Your task to perform on an android device: delete the emails in spam in the gmail app Image 0: 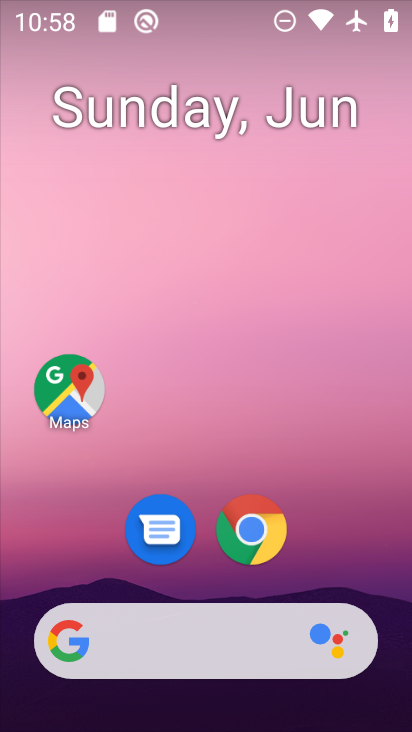
Step 0: drag from (405, 632) to (318, 94)
Your task to perform on an android device: delete the emails in spam in the gmail app Image 1: 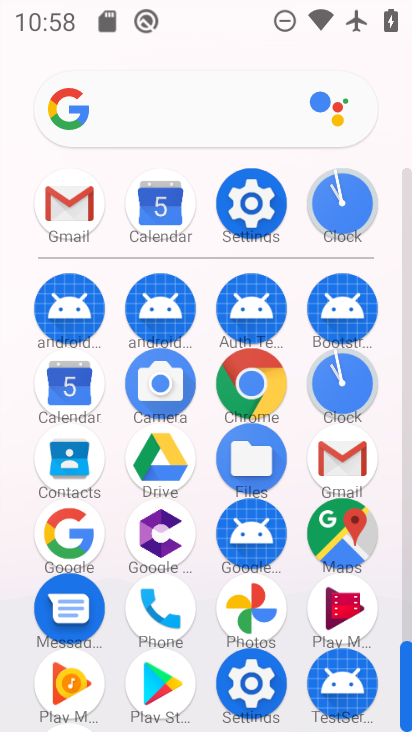
Step 1: click (340, 453)
Your task to perform on an android device: delete the emails in spam in the gmail app Image 2: 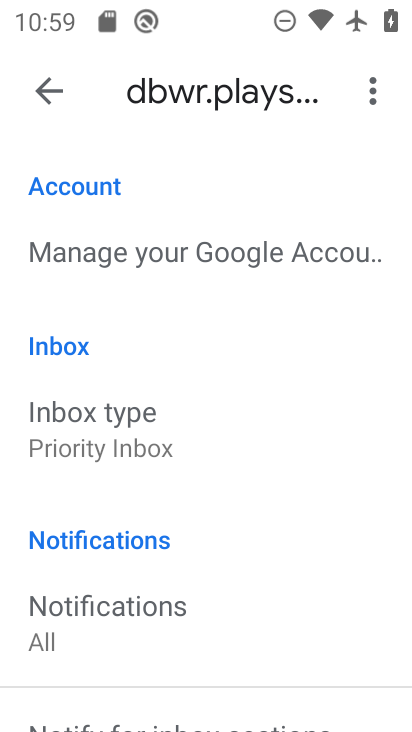
Step 2: press back button
Your task to perform on an android device: delete the emails in spam in the gmail app Image 3: 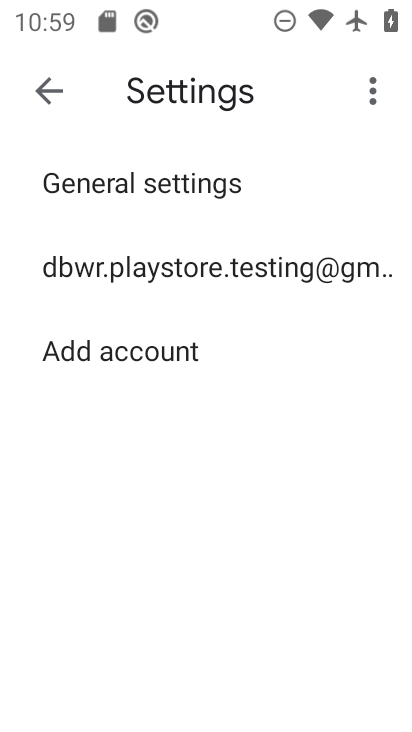
Step 3: press back button
Your task to perform on an android device: delete the emails in spam in the gmail app Image 4: 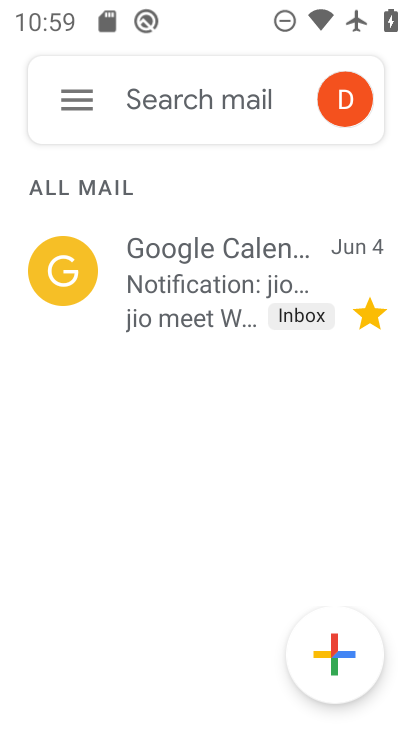
Step 4: click (81, 99)
Your task to perform on an android device: delete the emails in spam in the gmail app Image 5: 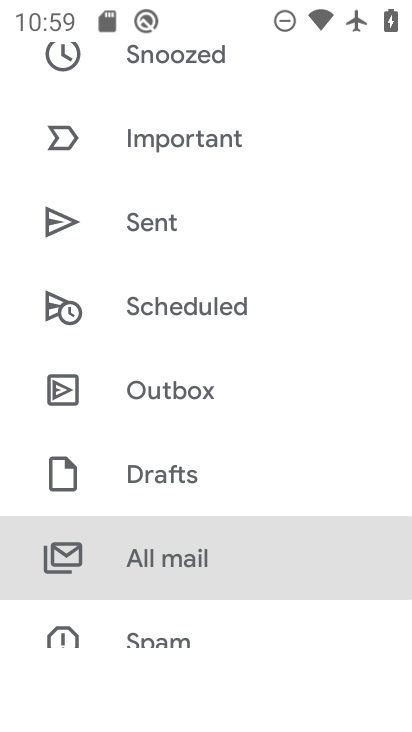
Step 5: drag from (289, 623) to (267, 264)
Your task to perform on an android device: delete the emails in spam in the gmail app Image 6: 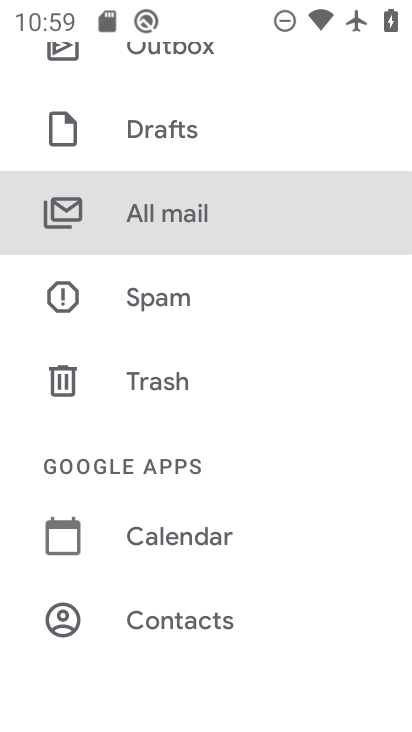
Step 6: click (179, 305)
Your task to perform on an android device: delete the emails in spam in the gmail app Image 7: 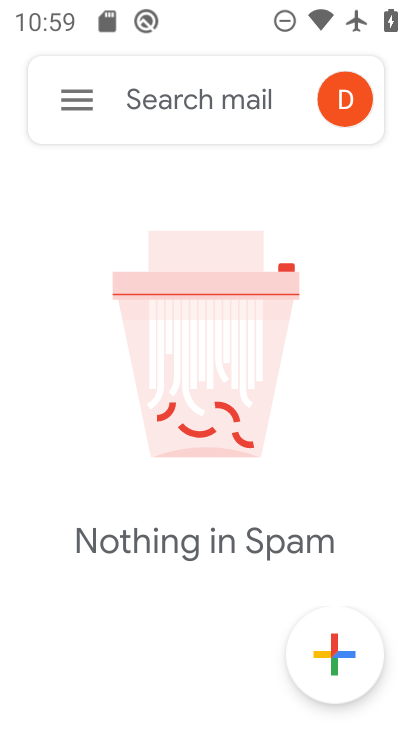
Step 7: task complete